Your task to perform on an android device: Go to Android settings Image 0: 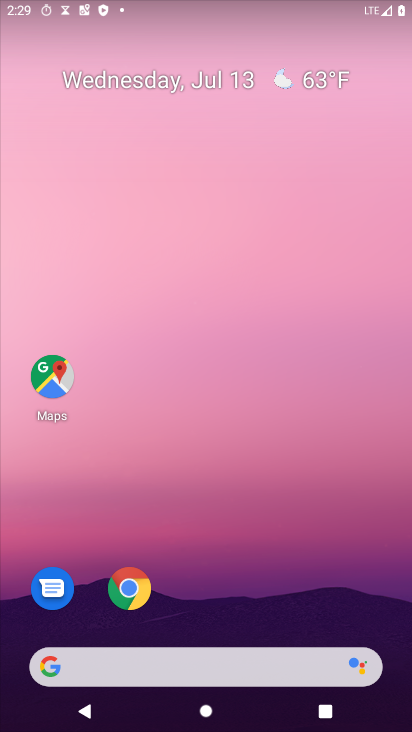
Step 0: drag from (161, 671) to (158, 153)
Your task to perform on an android device: Go to Android settings Image 1: 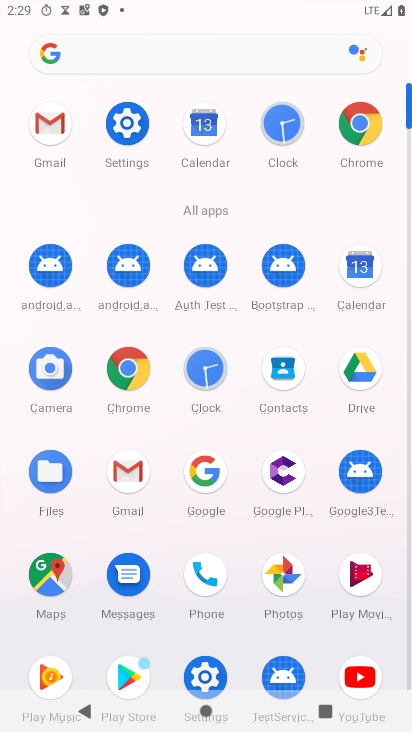
Step 1: click (123, 128)
Your task to perform on an android device: Go to Android settings Image 2: 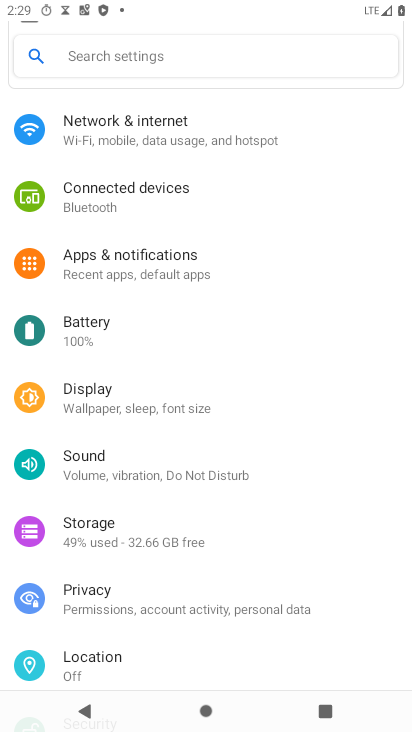
Step 2: task complete